Your task to perform on an android device: Open Chrome and go to settings Image 0: 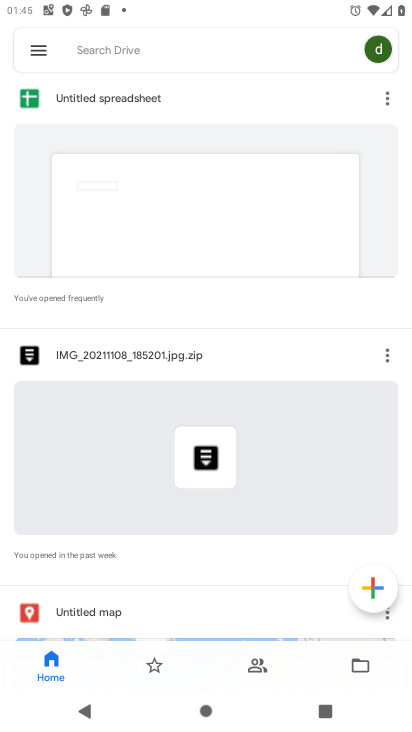
Step 0: press home button
Your task to perform on an android device: Open Chrome and go to settings Image 1: 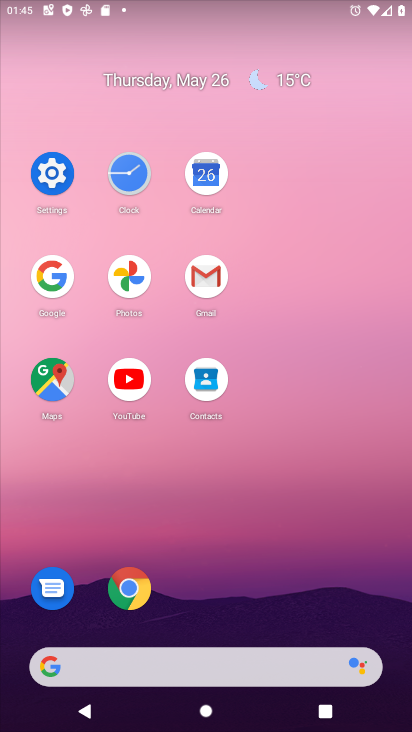
Step 1: click (120, 582)
Your task to perform on an android device: Open Chrome and go to settings Image 2: 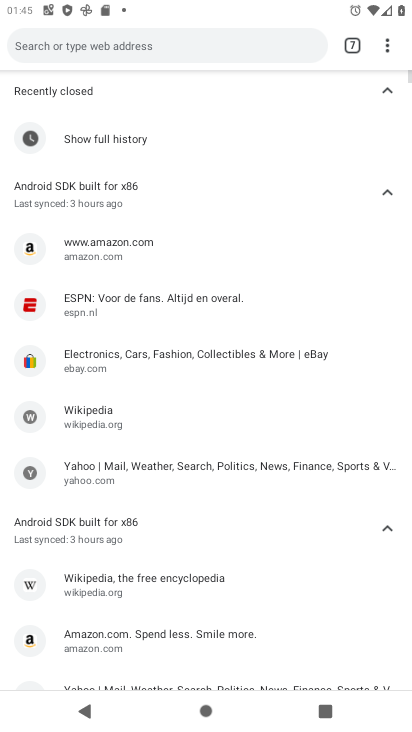
Step 2: click (393, 44)
Your task to perform on an android device: Open Chrome and go to settings Image 3: 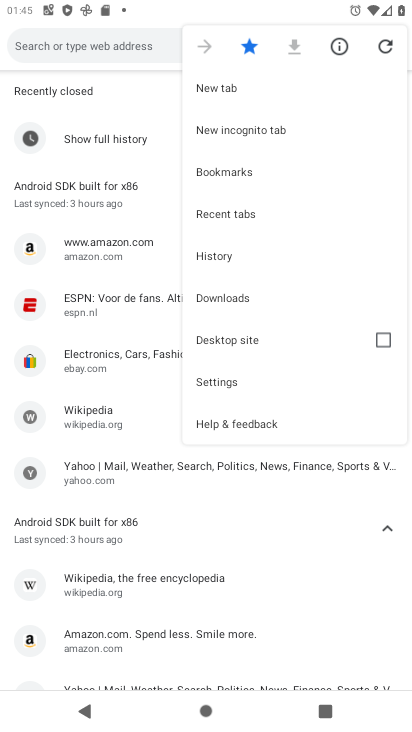
Step 3: click (230, 389)
Your task to perform on an android device: Open Chrome and go to settings Image 4: 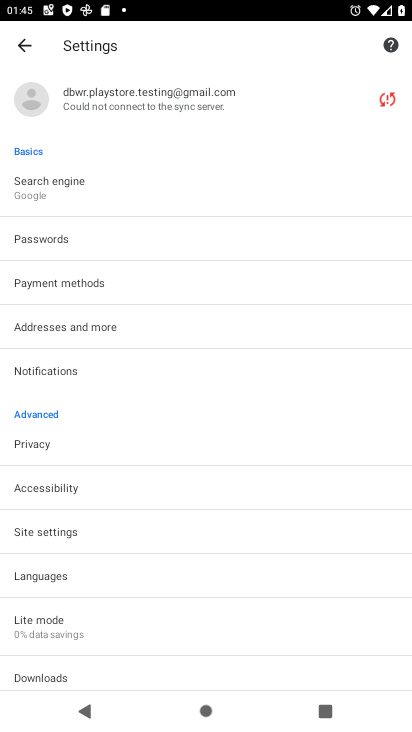
Step 4: task complete